Your task to perform on an android device: turn notification dots on Image 0: 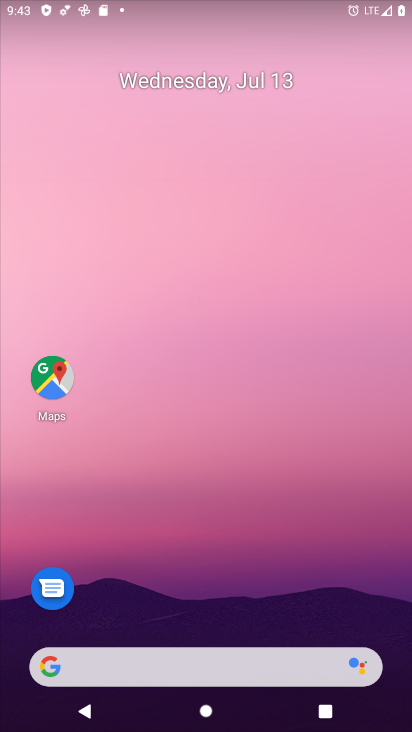
Step 0: drag from (135, 561) to (269, 24)
Your task to perform on an android device: turn notification dots on Image 1: 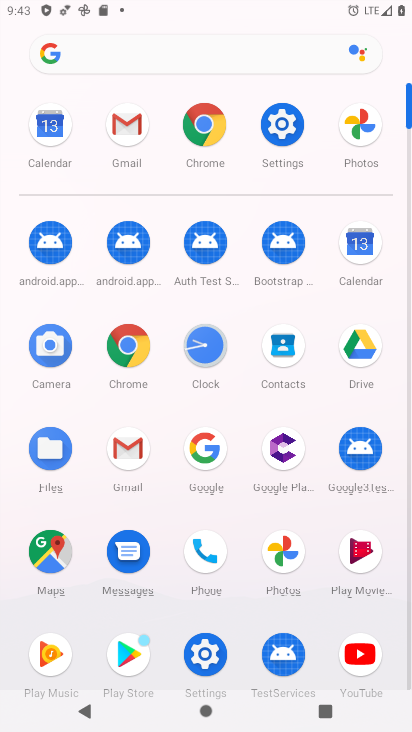
Step 1: click (276, 133)
Your task to perform on an android device: turn notification dots on Image 2: 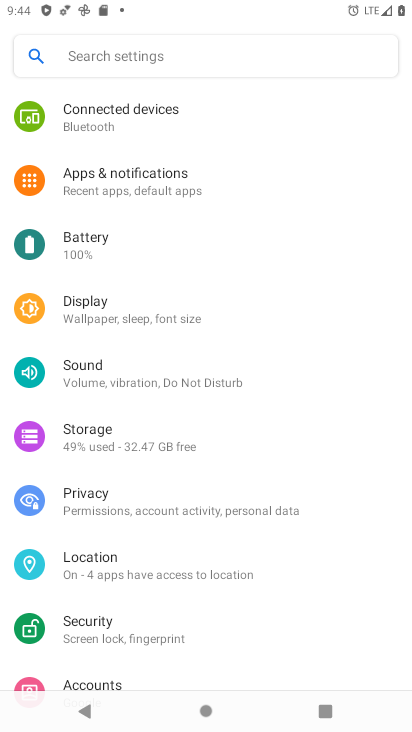
Step 2: click (144, 191)
Your task to perform on an android device: turn notification dots on Image 3: 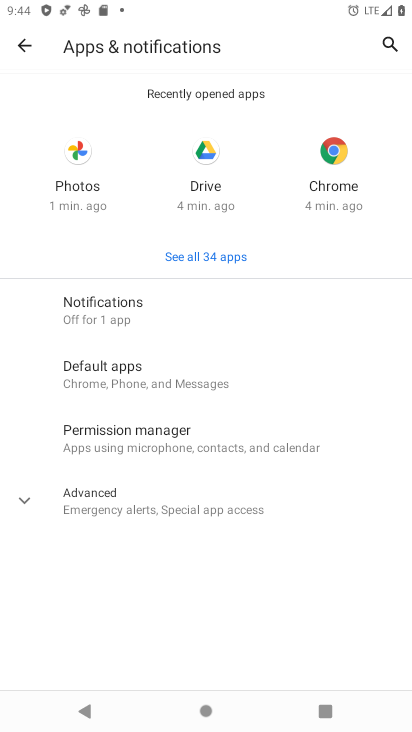
Step 3: click (144, 322)
Your task to perform on an android device: turn notification dots on Image 4: 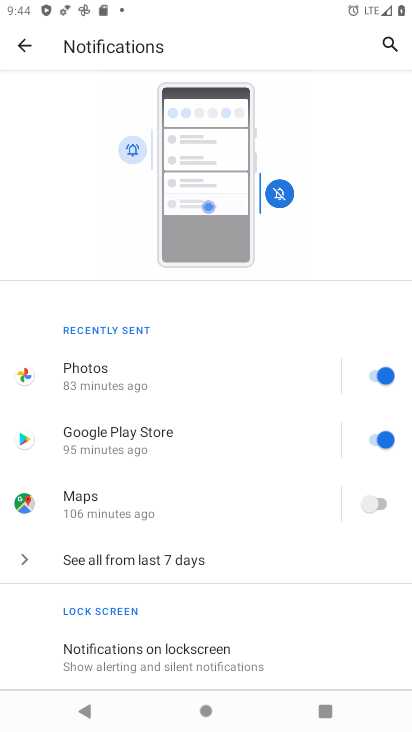
Step 4: drag from (278, 616) to (234, 19)
Your task to perform on an android device: turn notification dots on Image 5: 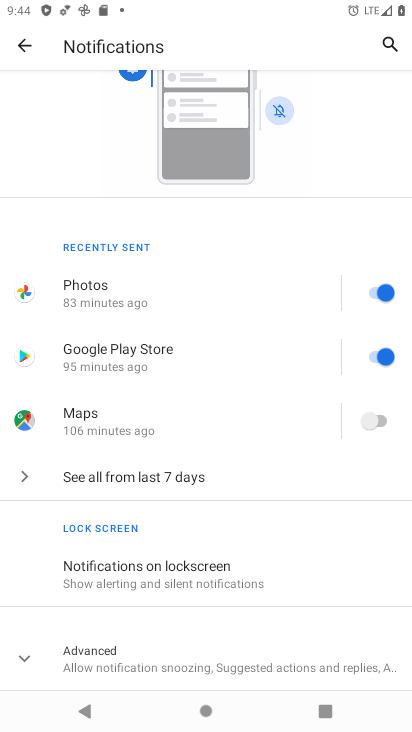
Step 5: click (217, 648)
Your task to perform on an android device: turn notification dots on Image 6: 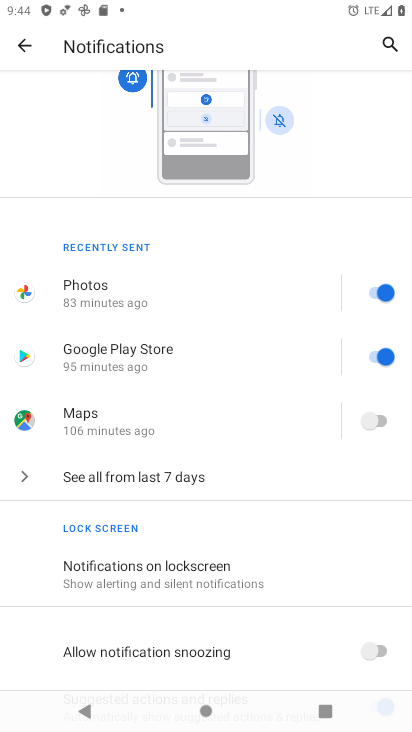
Step 6: task complete